Your task to perform on an android device: turn off javascript in the chrome app Image 0: 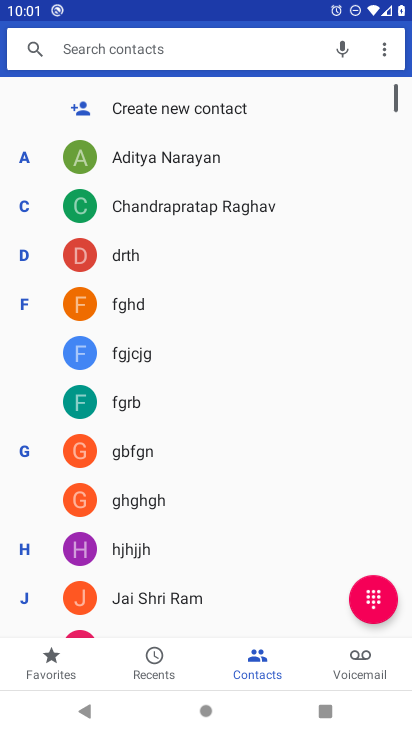
Step 0: press home button
Your task to perform on an android device: turn off javascript in the chrome app Image 1: 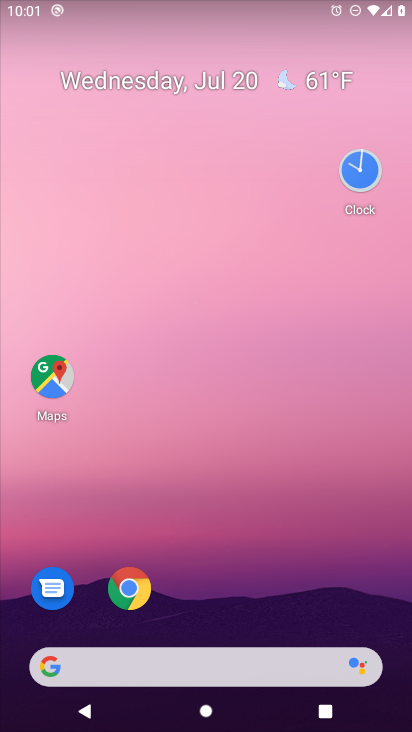
Step 1: click (136, 592)
Your task to perform on an android device: turn off javascript in the chrome app Image 2: 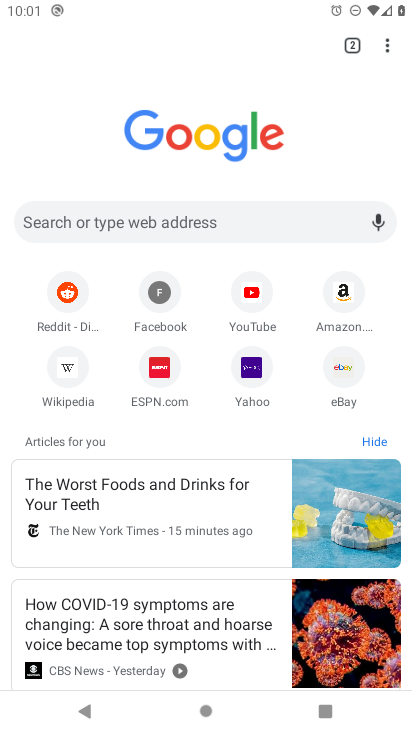
Step 2: click (390, 53)
Your task to perform on an android device: turn off javascript in the chrome app Image 3: 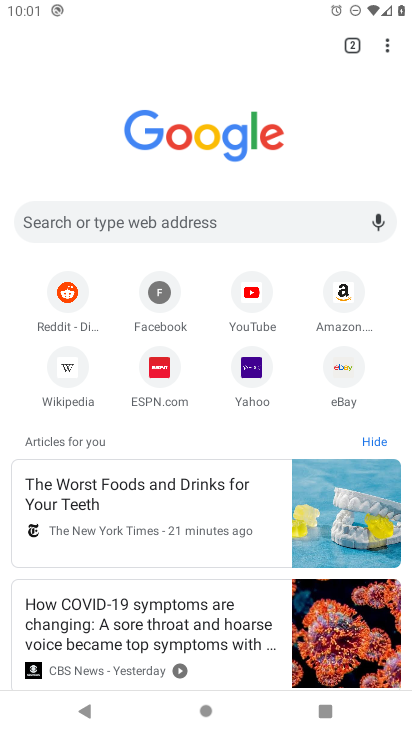
Step 3: click (394, 42)
Your task to perform on an android device: turn off javascript in the chrome app Image 4: 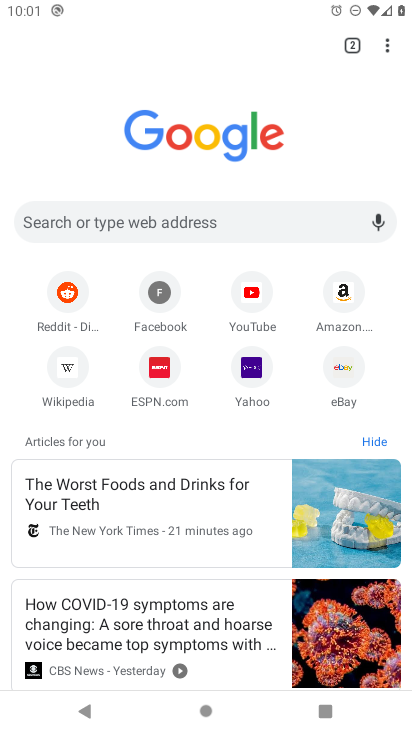
Step 4: click (390, 44)
Your task to perform on an android device: turn off javascript in the chrome app Image 5: 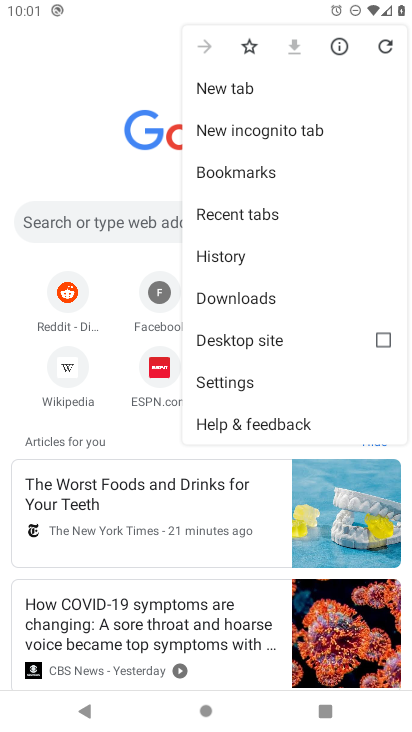
Step 5: click (225, 358)
Your task to perform on an android device: turn off javascript in the chrome app Image 6: 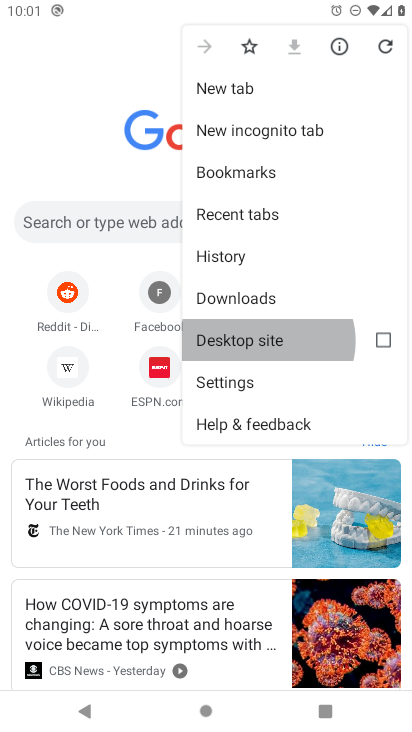
Step 6: click (225, 365)
Your task to perform on an android device: turn off javascript in the chrome app Image 7: 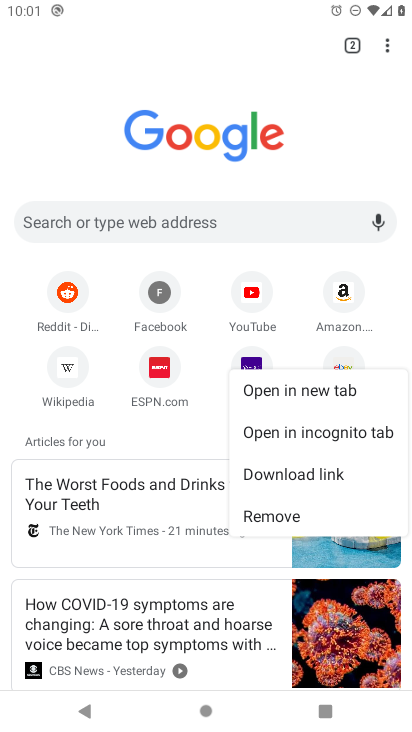
Step 7: task complete